Your task to perform on an android device: Go to battery settings Image 0: 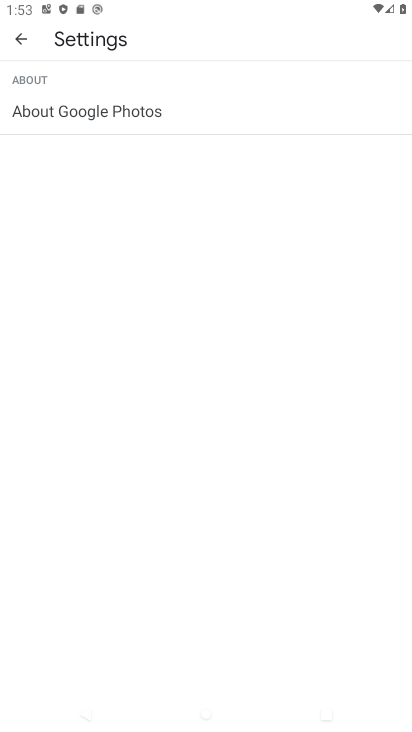
Step 0: press home button
Your task to perform on an android device: Go to battery settings Image 1: 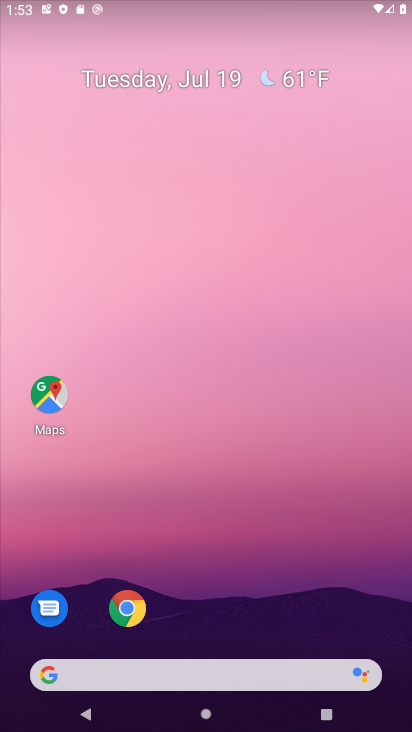
Step 1: drag from (312, 595) to (224, 7)
Your task to perform on an android device: Go to battery settings Image 2: 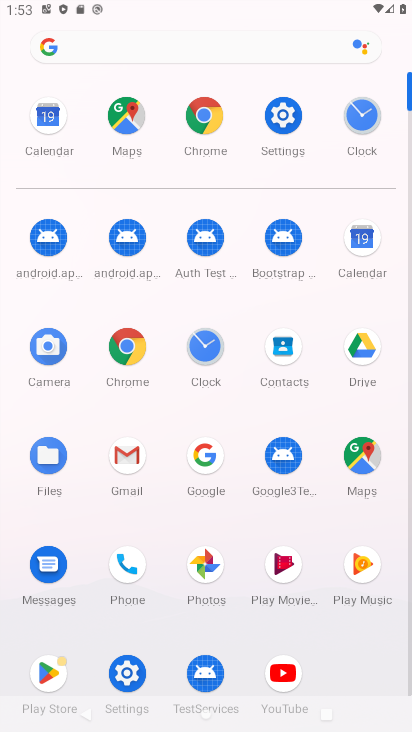
Step 2: click (279, 123)
Your task to perform on an android device: Go to battery settings Image 3: 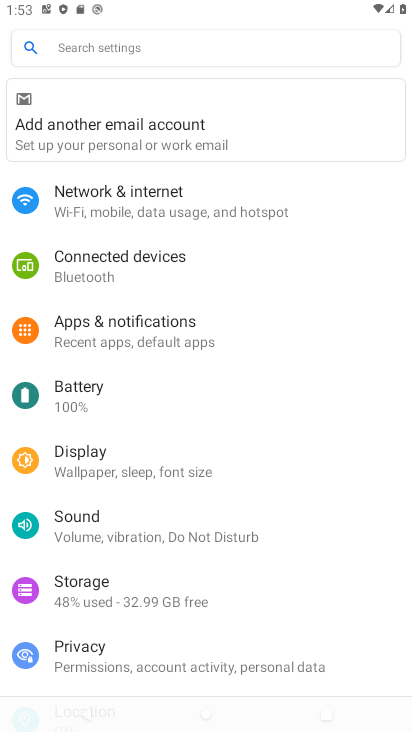
Step 3: click (70, 405)
Your task to perform on an android device: Go to battery settings Image 4: 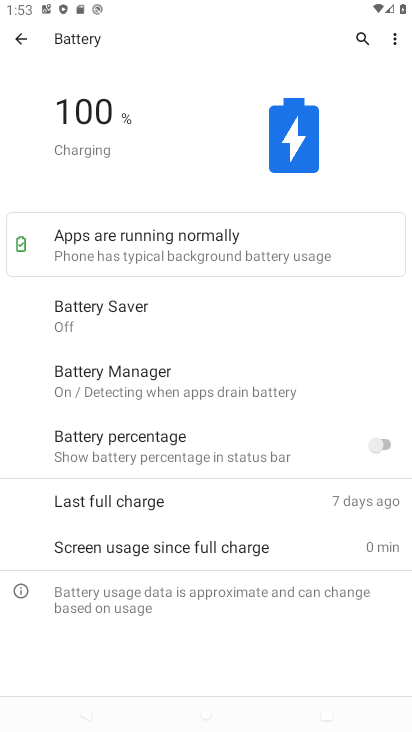
Step 4: task complete